Your task to perform on an android device: Clear all items from cart on walmart. Search for razer blade on walmart, select the first entry, and add it to the cart. Image 0: 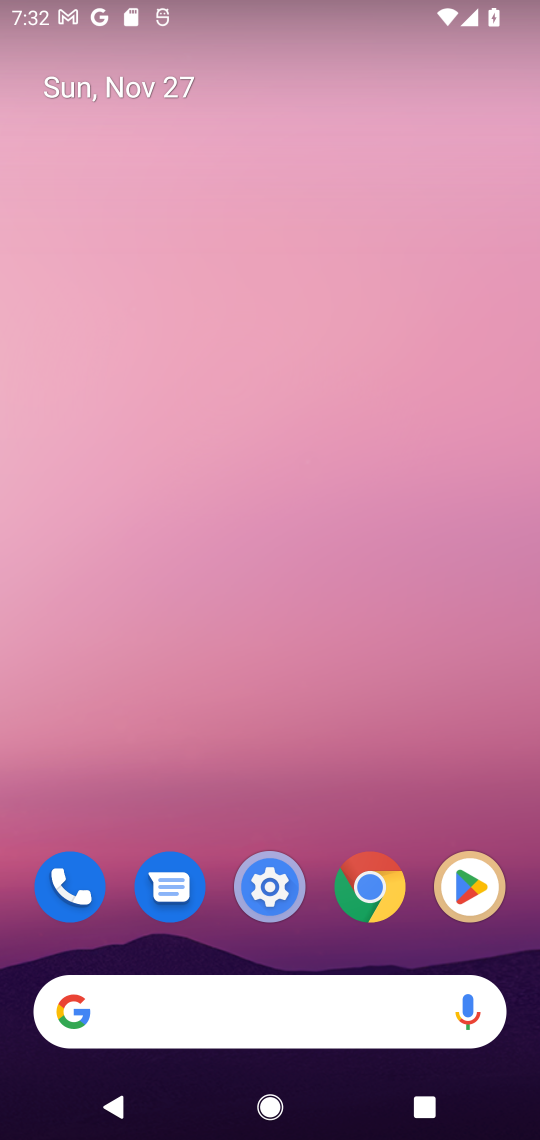
Step 0: click (292, 1023)
Your task to perform on an android device: Clear all items from cart on walmart. Search for razer blade on walmart, select the first entry, and add it to the cart. Image 1: 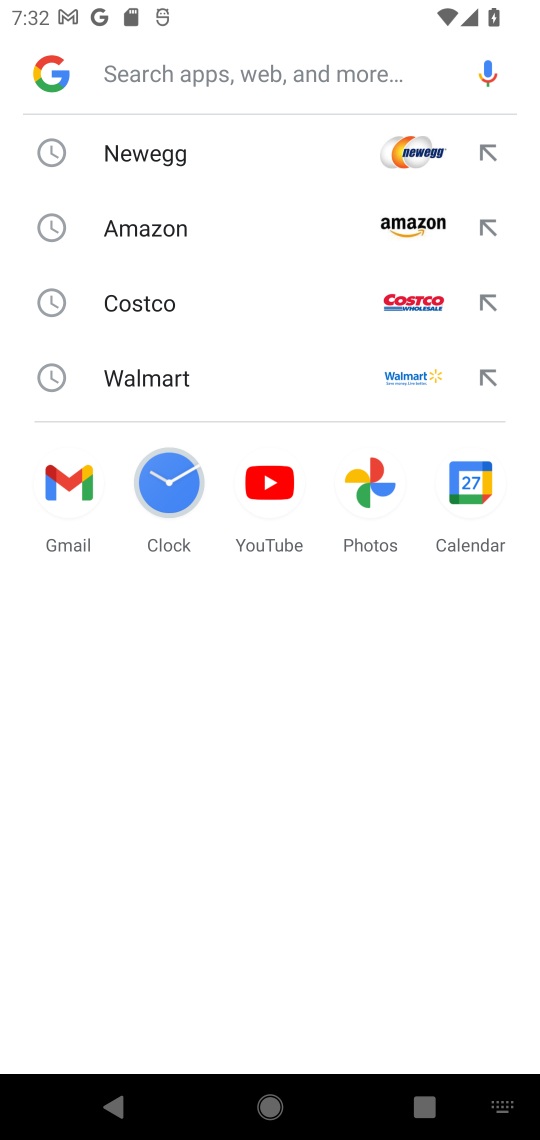
Step 1: click (213, 396)
Your task to perform on an android device: Clear all items from cart on walmart. Search for razer blade on walmart, select the first entry, and add it to the cart. Image 2: 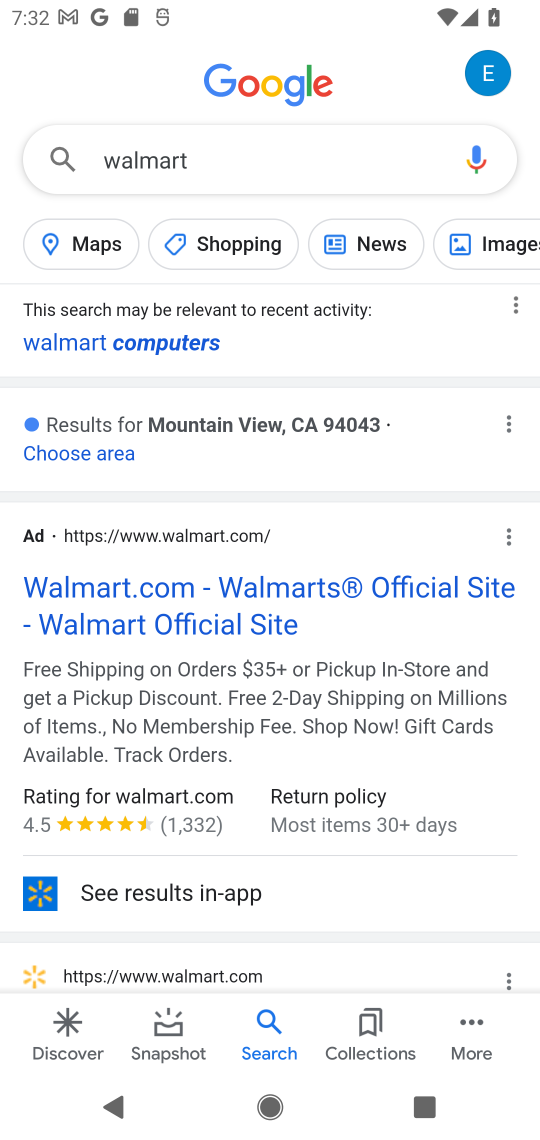
Step 2: click (258, 579)
Your task to perform on an android device: Clear all items from cart on walmart. Search for razer blade on walmart, select the first entry, and add it to the cart. Image 3: 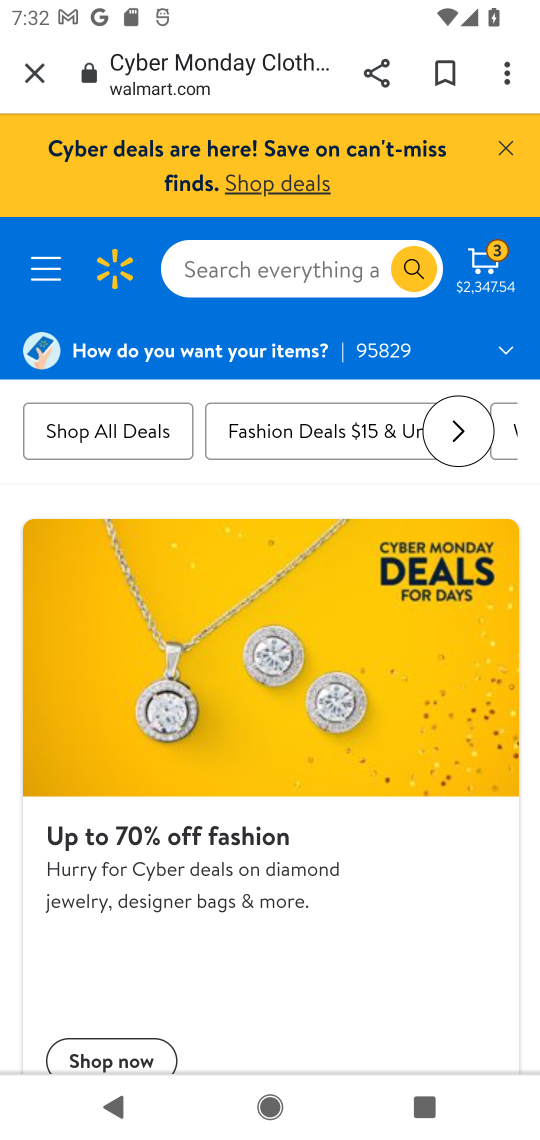
Step 3: click (205, 261)
Your task to perform on an android device: Clear all items from cart on walmart. Search for razer blade on walmart, select the first entry, and add it to the cart. Image 4: 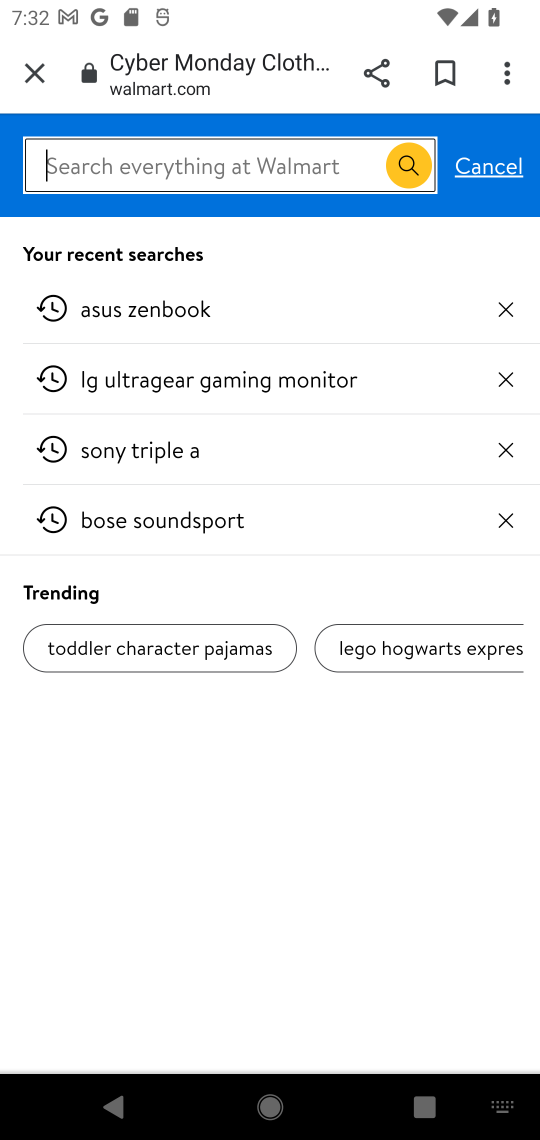
Step 4: type "razerr blade"
Your task to perform on an android device: Clear all items from cart on walmart. Search for razer blade on walmart, select the first entry, and add it to the cart. Image 5: 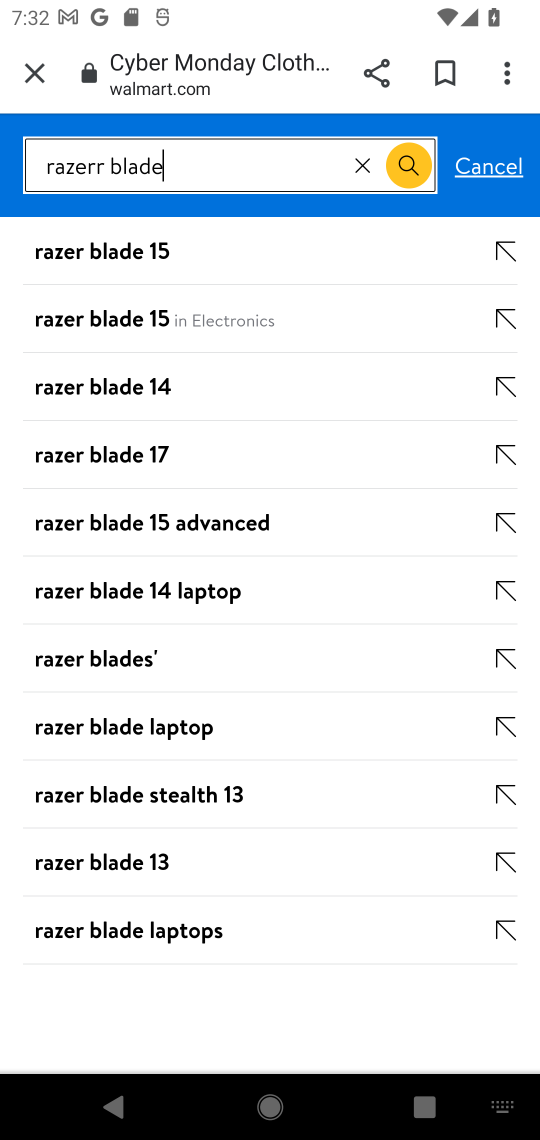
Step 5: click (171, 254)
Your task to perform on an android device: Clear all items from cart on walmart. Search for razer blade on walmart, select the first entry, and add it to the cart. Image 6: 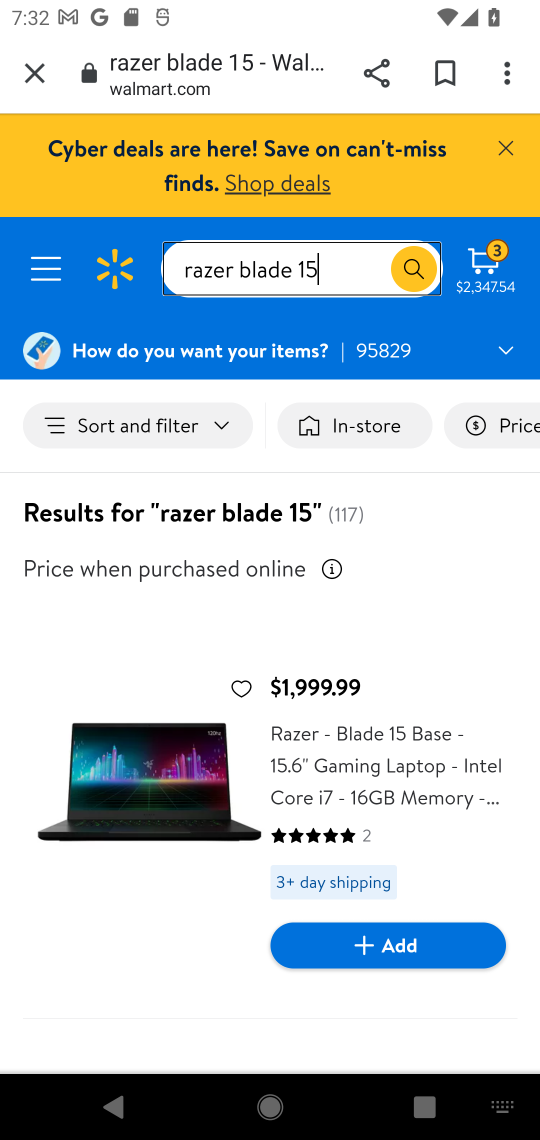
Step 6: click (385, 932)
Your task to perform on an android device: Clear all items from cart on walmart. Search for razer blade on walmart, select the first entry, and add it to the cart. Image 7: 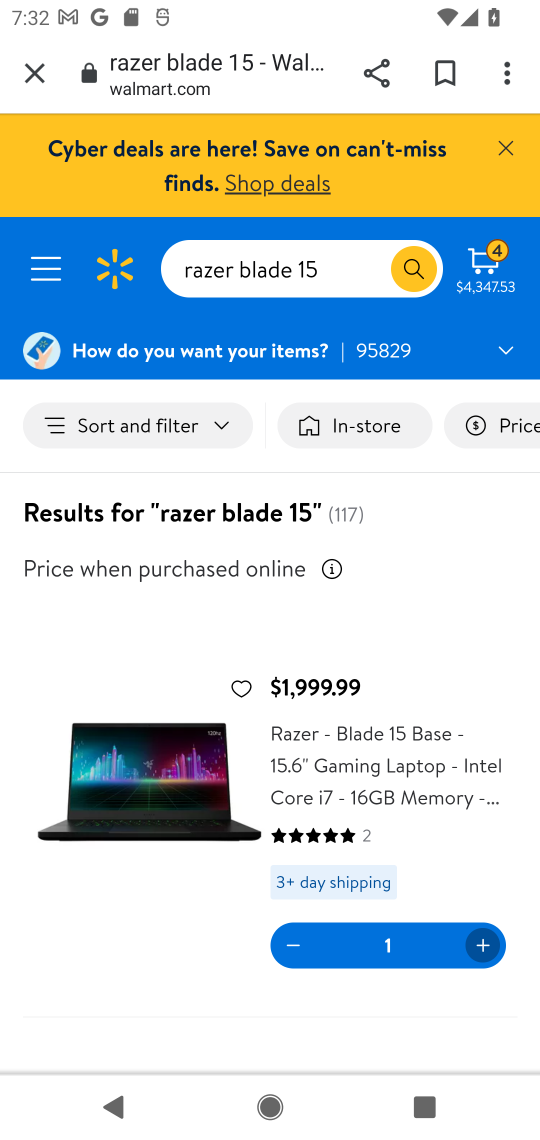
Step 7: task complete